Your task to perform on an android device: toggle priority inbox in the gmail app Image 0: 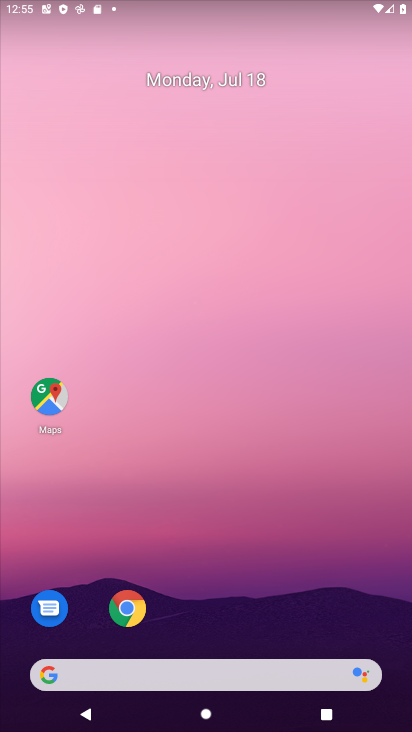
Step 0: drag from (398, 652) to (165, 75)
Your task to perform on an android device: toggle priority inbox in the gmail app Image 1: 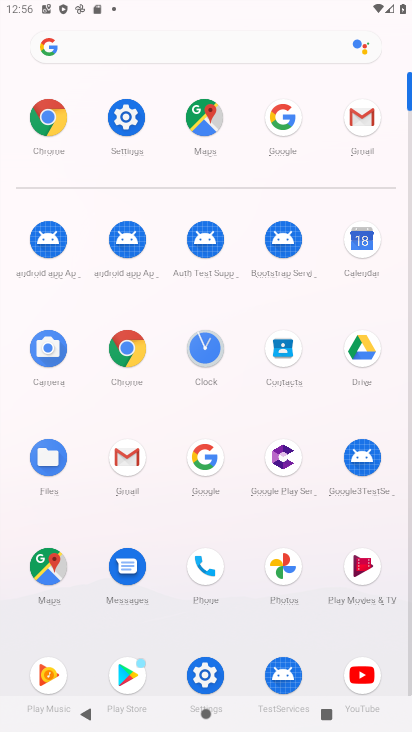
Step 1: click (121, 460)
Your task to perform on an android device: toggle priority inbox in the gmail app Image 2: 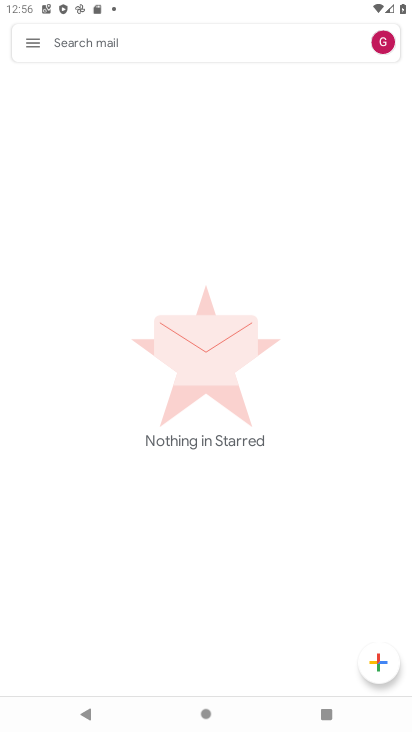
Step 2: click (28, 45)
Your task to perform on an android device: toggle priority inbox in the gmail app Image 3: 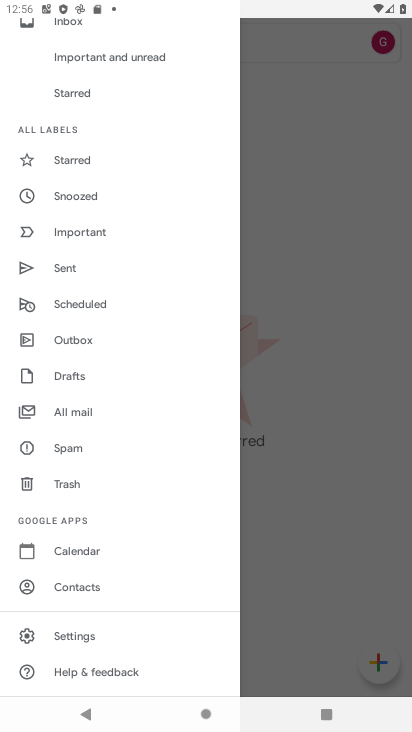
Step 3: click (89, 637)
Your task to perform on an android device: toggle priority inbox in the gmail app Image 4: 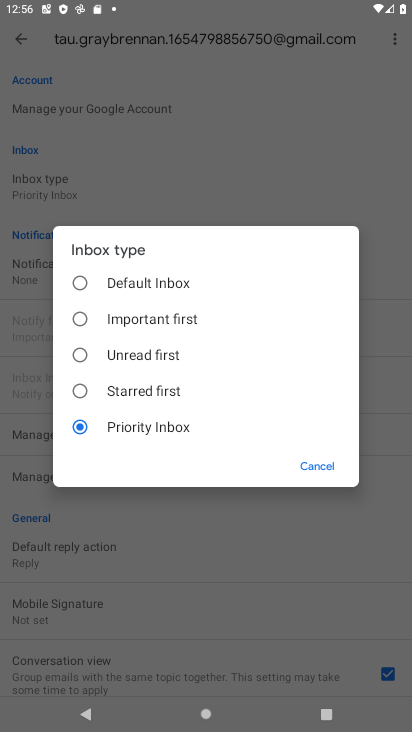
Step 4: click (317, 474)
Your task to perform on an android device: toggle priority inbox in the gmail app Image 5: 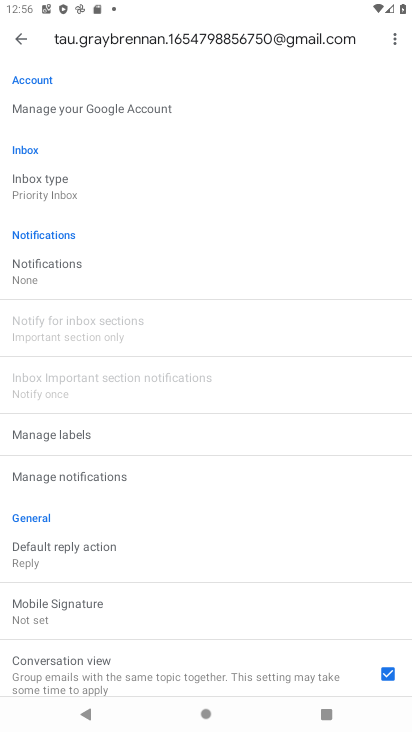
Step 5: click (59, 189)
Your task to perform on an android device: toggle priority inbox in the gmail app Image 6: 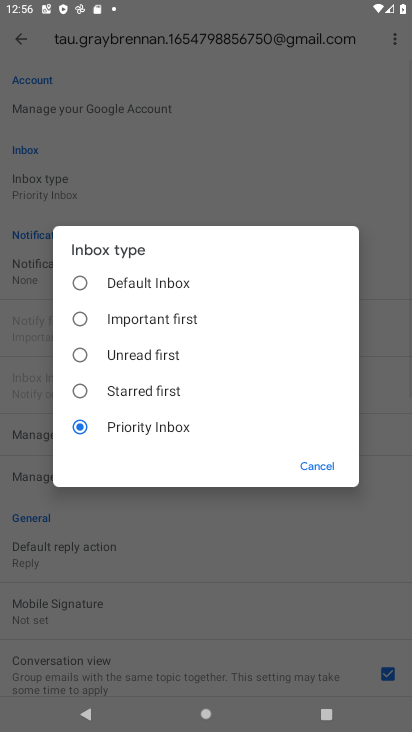
Step 6: click (161, 282)
Your task to perform on an android device: toggle priority inbox in the gmail app Image 7: 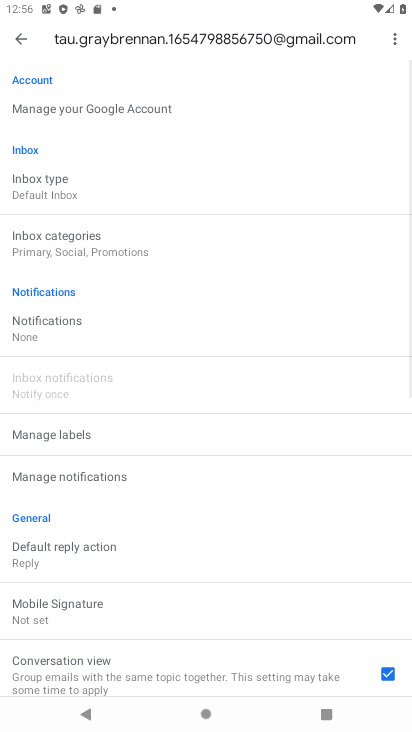
Step 7: task complete